Your task to perform on an android device: set default search engine in the chrome app Image 0: 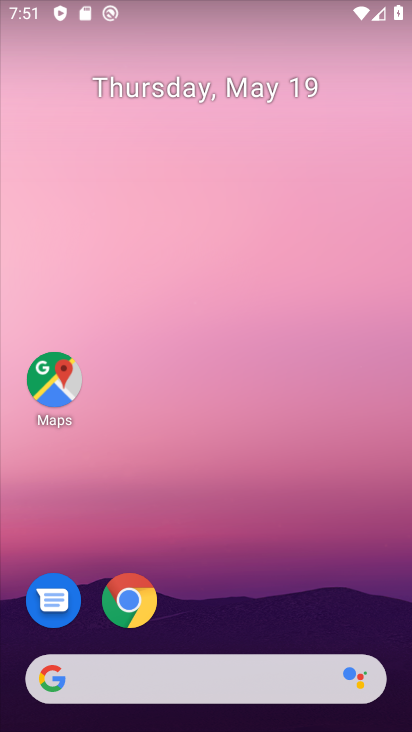
Step 0: click (137, 608)
Your task to perform on an android device: set default search engine in the chrome app Image 1: 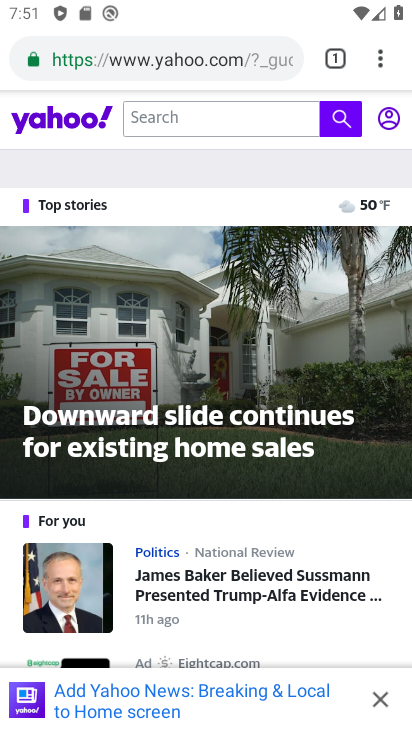
Step 1: click (386, 69)
Your task to perform on an android device: set default search engine in the chrome app Image 2: 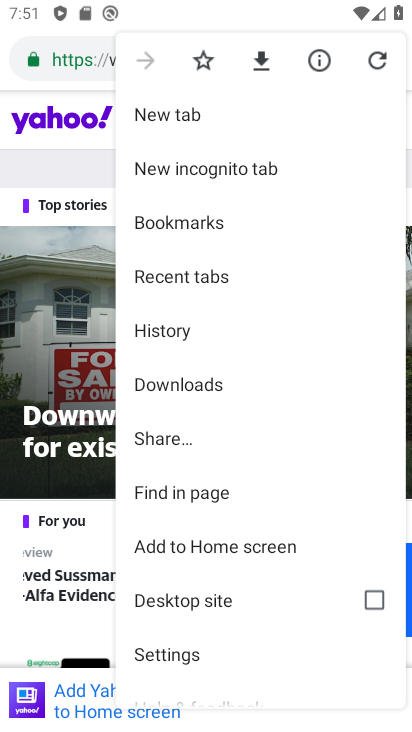
Step 2: click (206, 655)
Your task to perform on an android device: set default search engine in the chrome app Image 3: 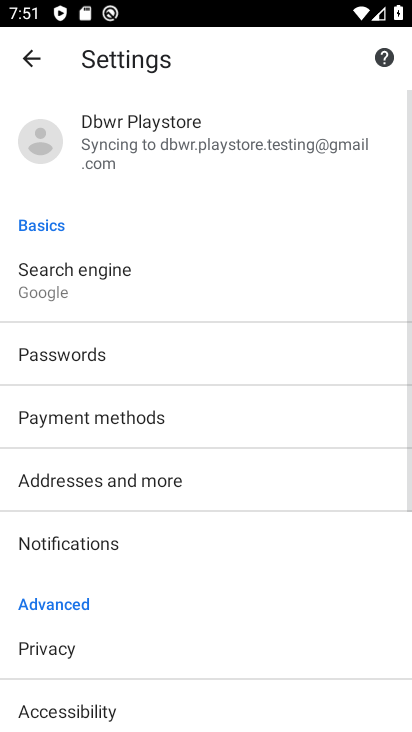
Step 3: click (203, 294)
Your task to perform on an android device: set default search engine in the chrome app Image 4: 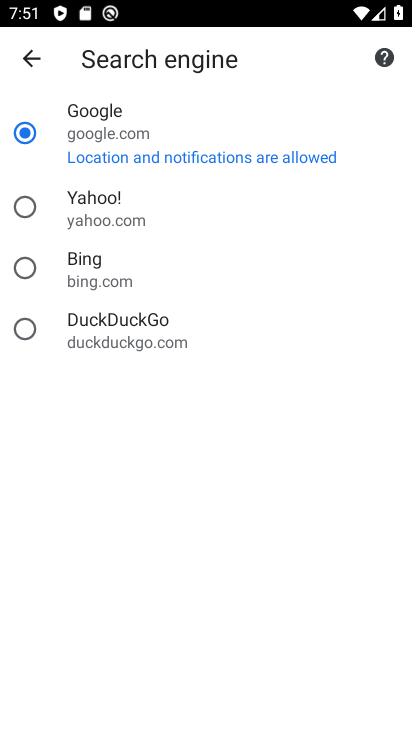
Step 4: click (166, 336)
Your task to perform on an android device: set default search engine in the chrome app Image 5: 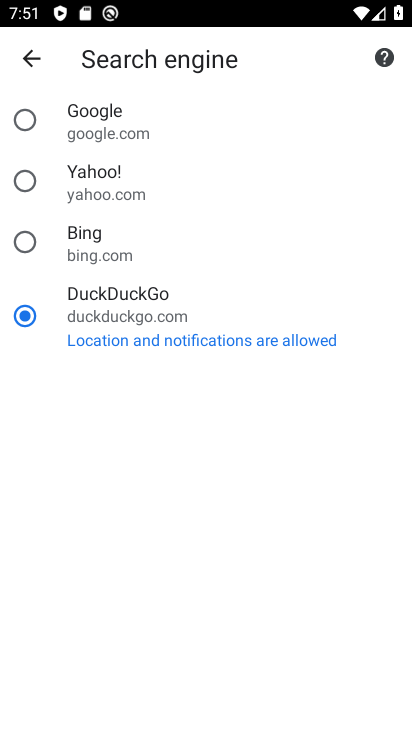
Step 5: task complete